Your task to perform on an android device: Open Maps and search for coffee Image 0: 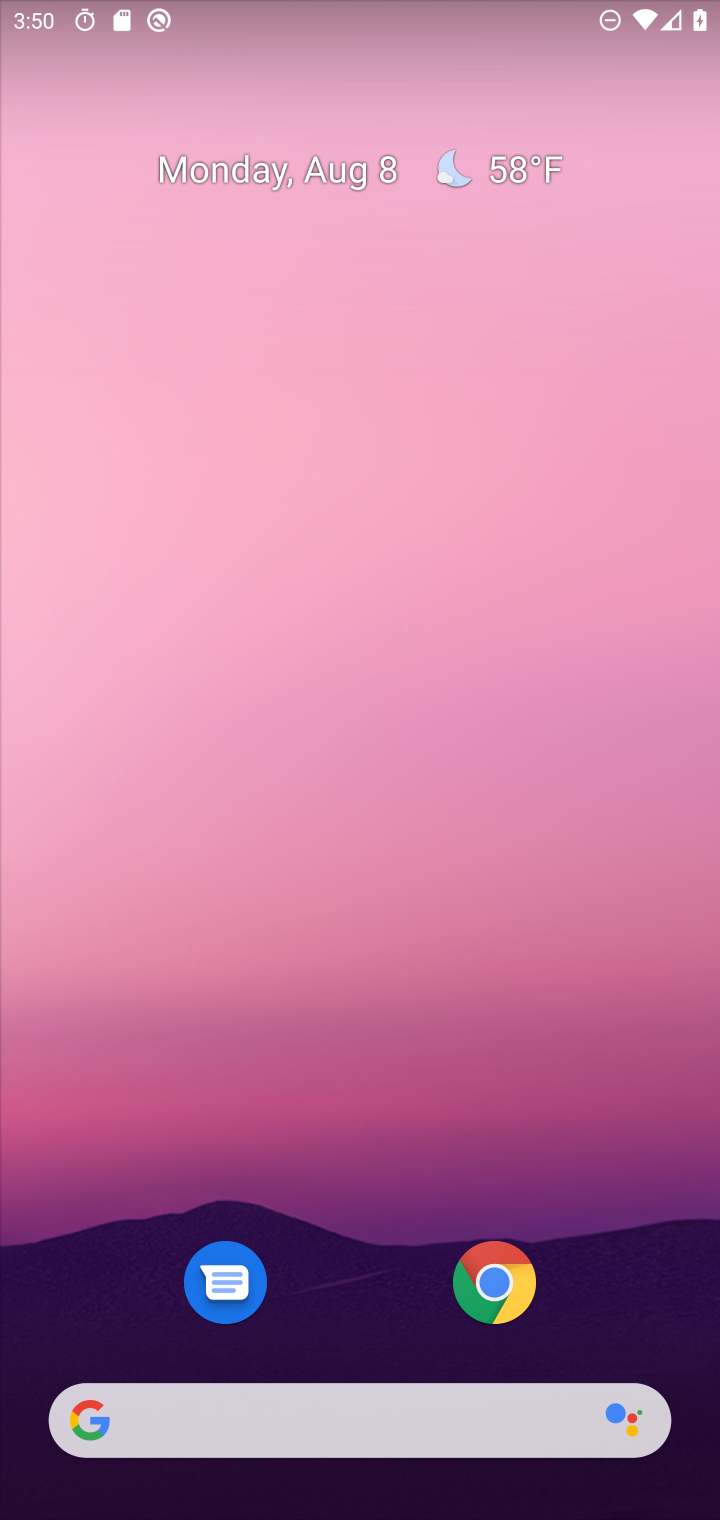
Step 0: drag from (392, 1099) to (529, 395)
Your task to perform on an android device: Open Maps and search for coffee Image 1: 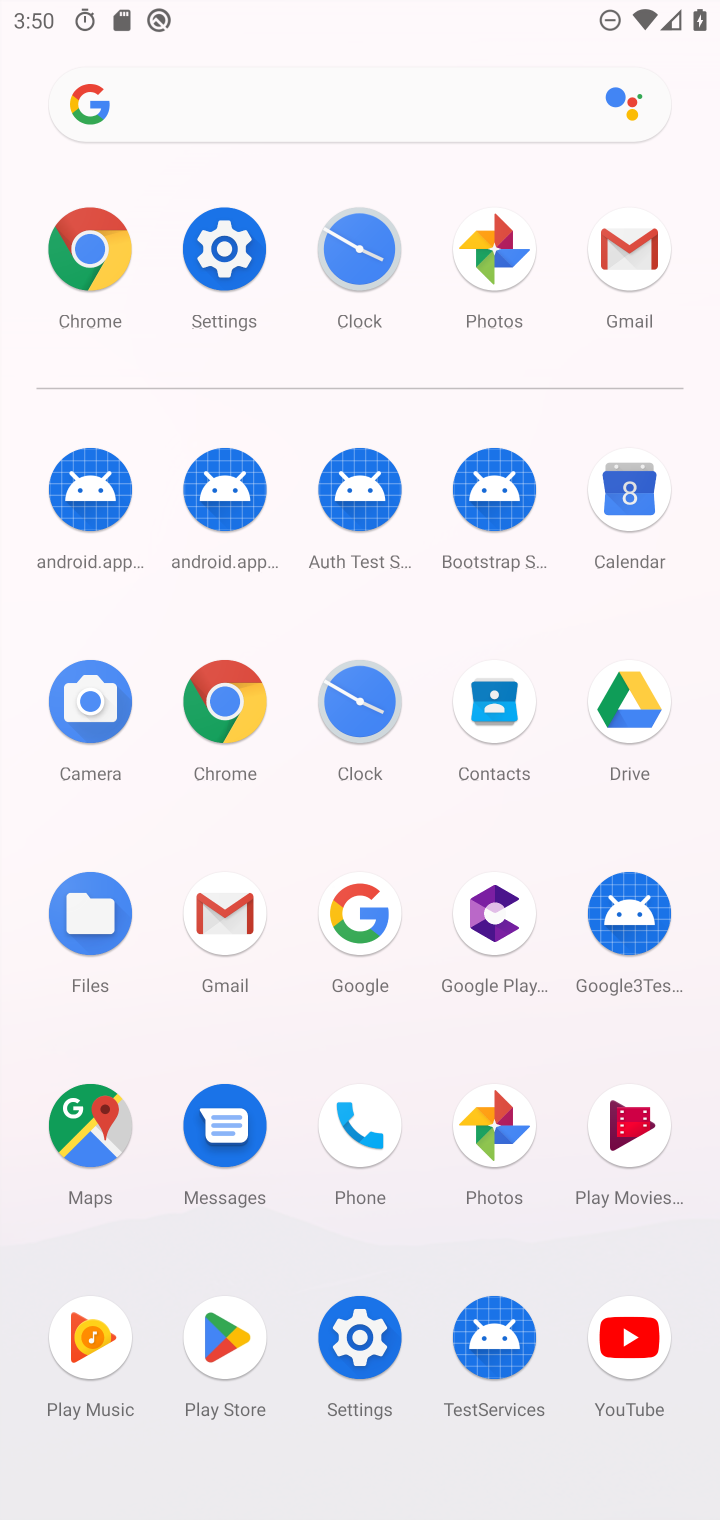
Step 1: click (97, 1128)
Your task to perform on an android device: Open Maps and search for coffee Image 2: 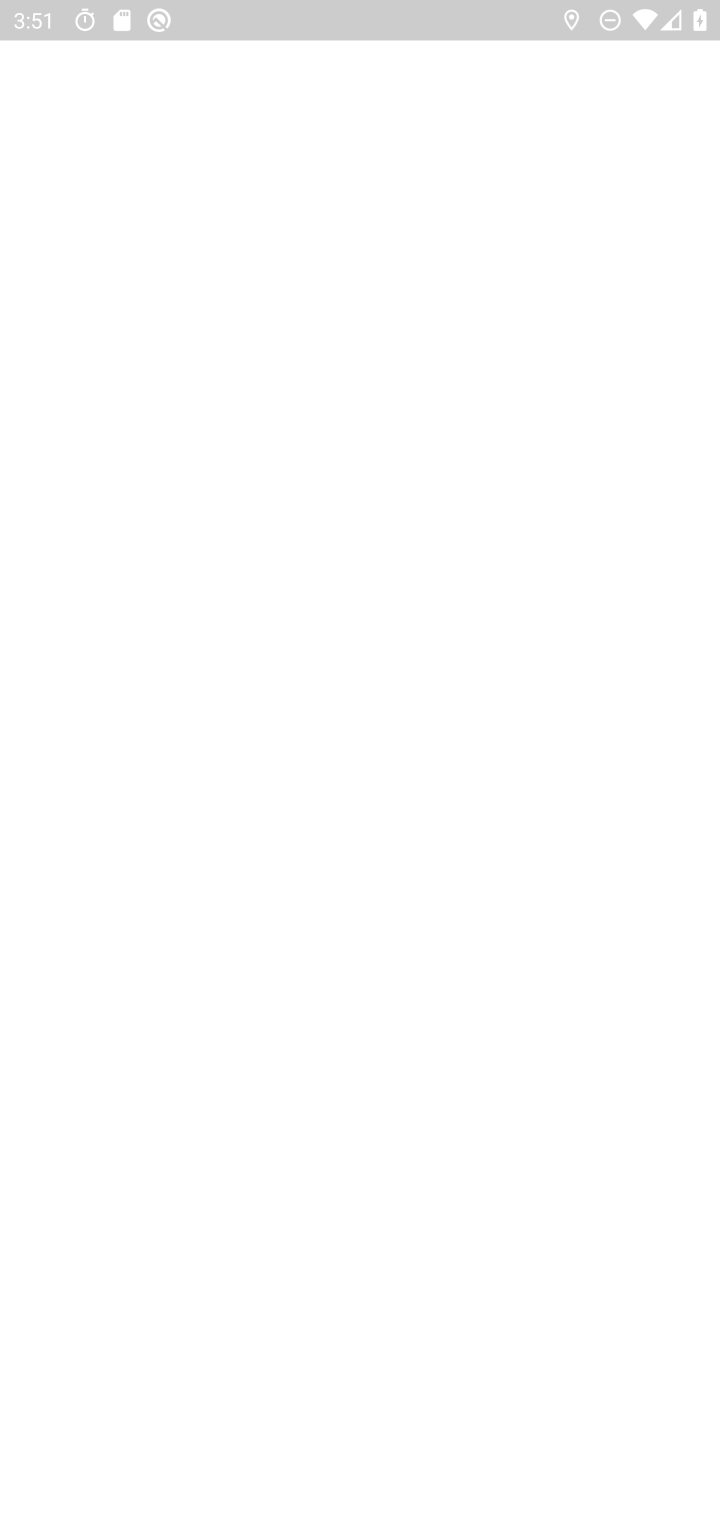
Step 2: task complete